Your task to perform on an android device: turn on sleep mode Image 0: 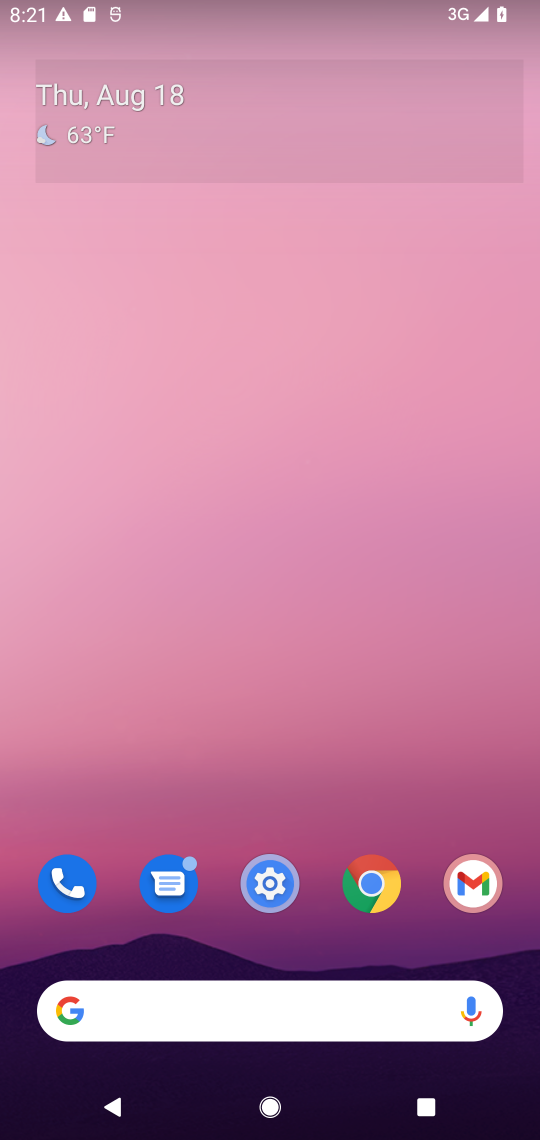
Step 0: drag from (58, 1086) to (252, 450)
Your task to perform on an android device: turn on sleep mode Image 1: 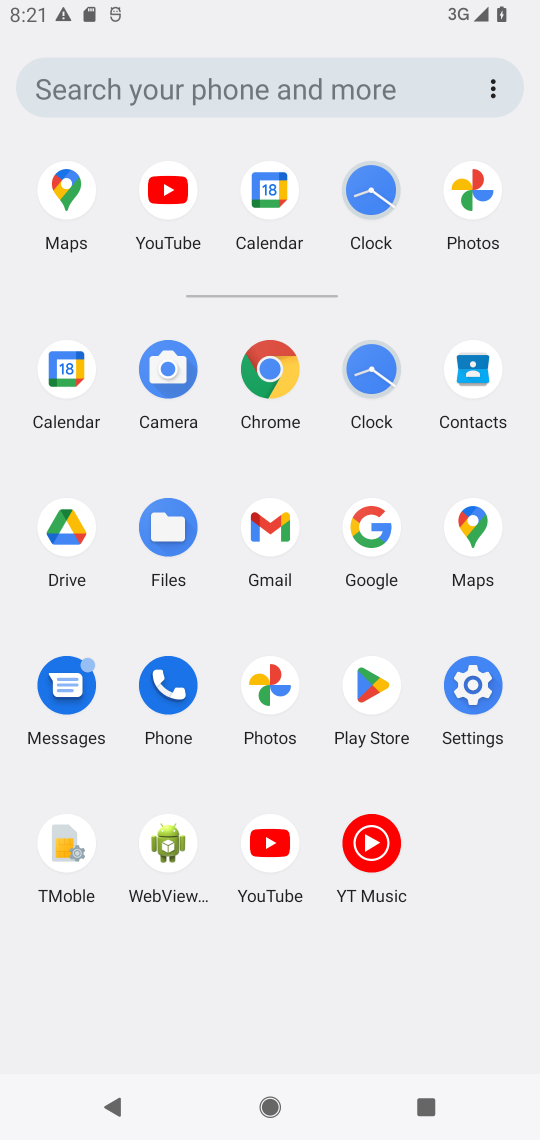
Step 1: click (464, 705)
Your task to perform on an android device: turn on sleep mode Image 2: 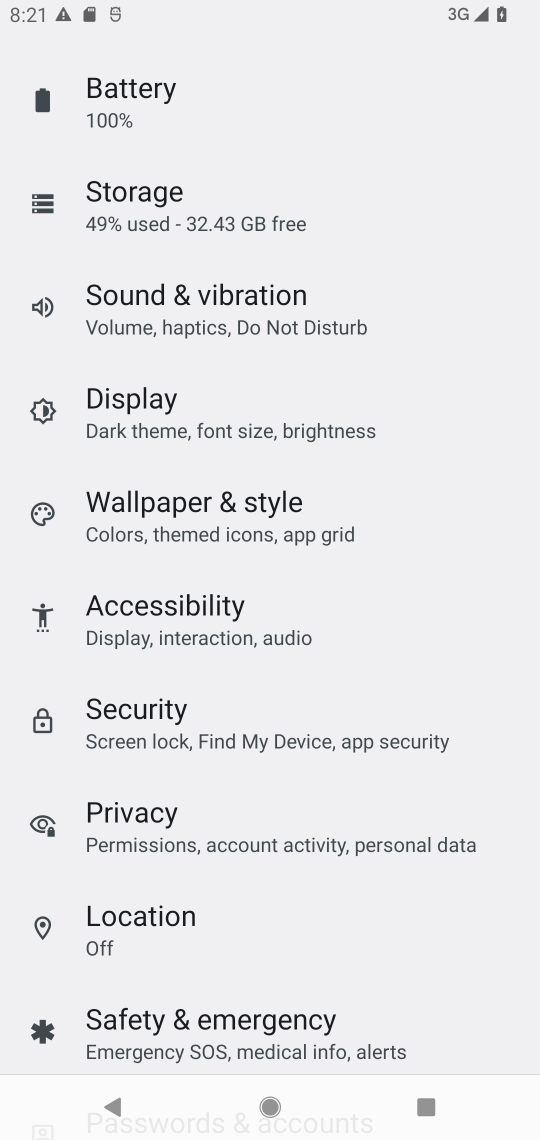
Step 2: task complete